Your task to perform on an android device: Search for seafood restaurants on Google Maps Image 0: 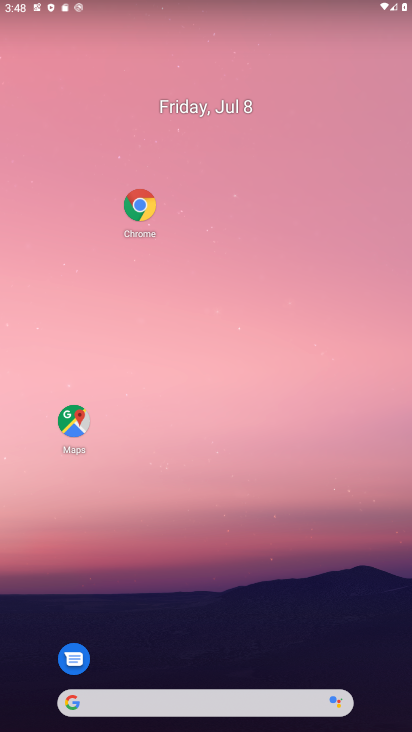
Step 0: click (90, 437)
Your task to perform on an android device: Search for seafood restaurants on Google Maps Image 1: 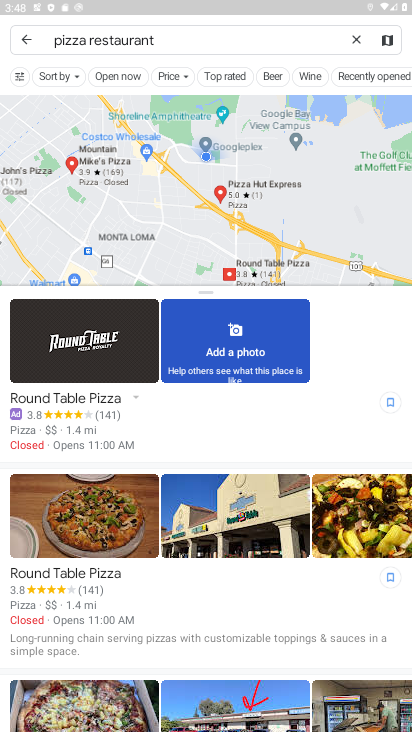
Step 1: click (352, 38)
Your task to perform on an android device: Search for seafood restaurants on Google Maps Image 2: 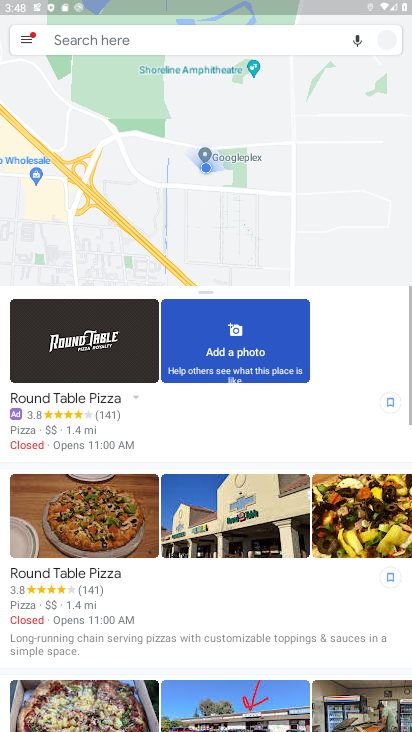
Step 2: click (203, 32)
Your task to perform on an android device: Search for seafood restaurants on Google Maps Image 3: 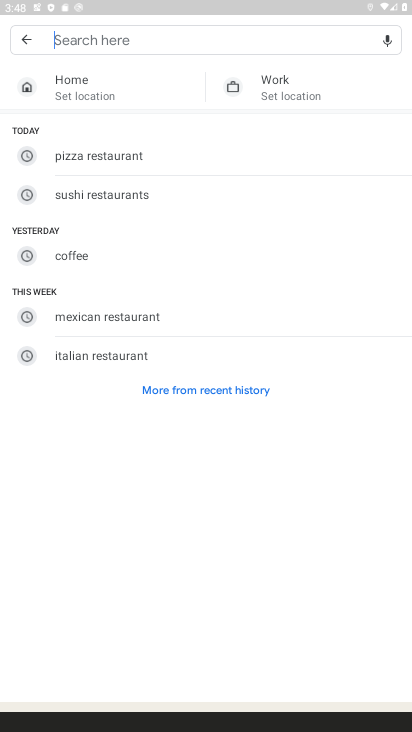
Step 3: click (133, 39)
Your task to perform on an android device: Search for seafood restaurants on Google Maps Image 4: 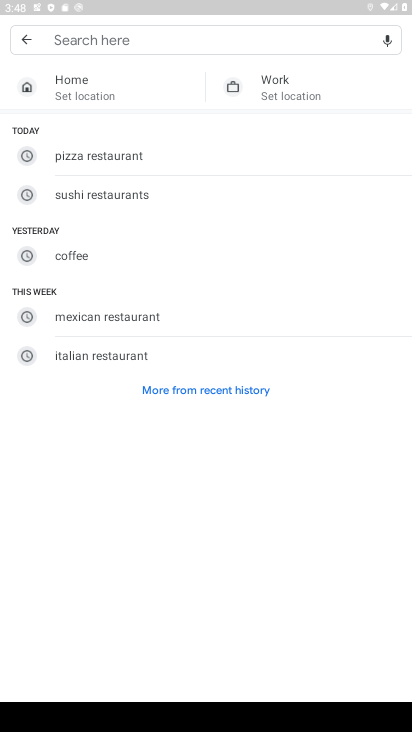
Step 4: type "seafood restaurants"
Your task to perform on an android device: Search for seafood restaurants on Google Maps Image 5: 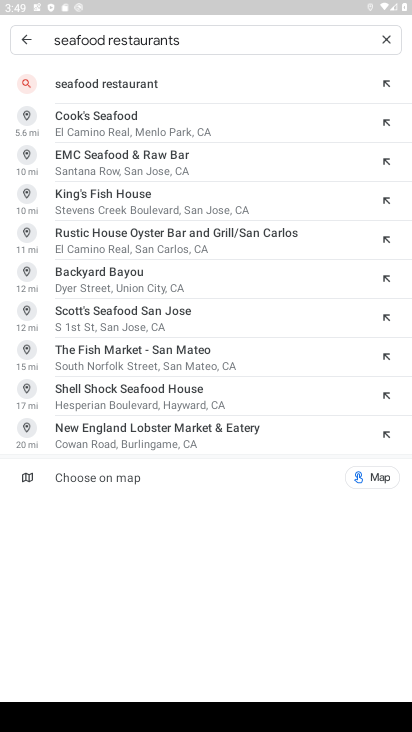
Step 5: click (153, 91)
Your task to perform on an android device: Search for seafood restaurants on Google Maps Image 6: 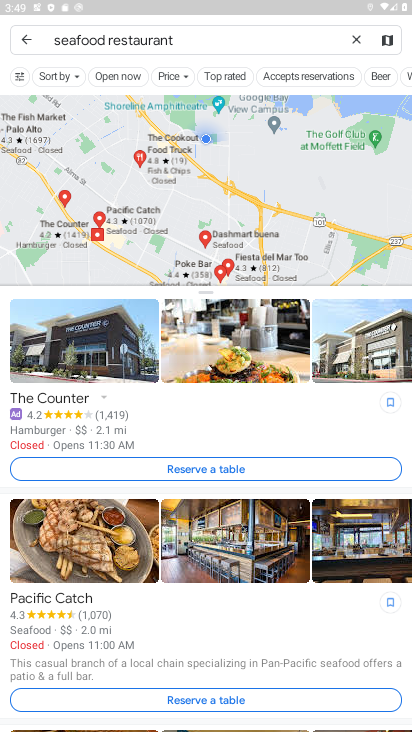
Step 6: task complete